Your task to perform on an android device: open a bookmark in the chrome app Image 0: 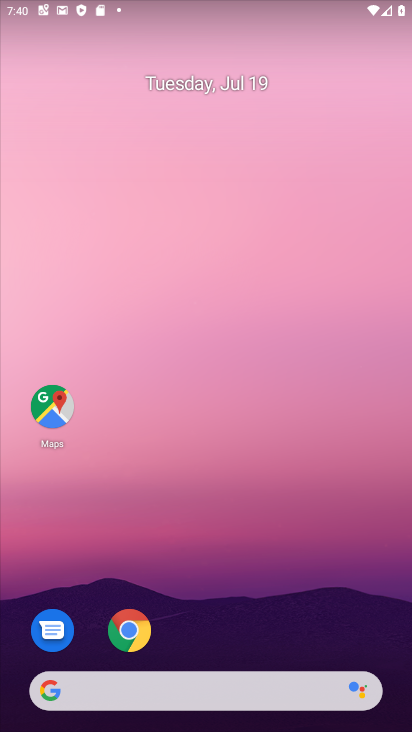
Step 0: drag from (333, 660) to (300, 120)
Your task to perform on an android device: open a bookmark in the chrome app Image 1: 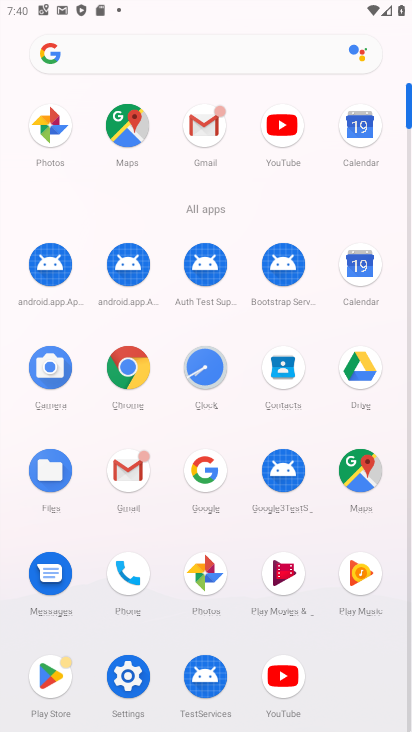
Step 1: click (123, 370)
Your task to perform on an android device: open a bookmark in the chrome app Image 2: 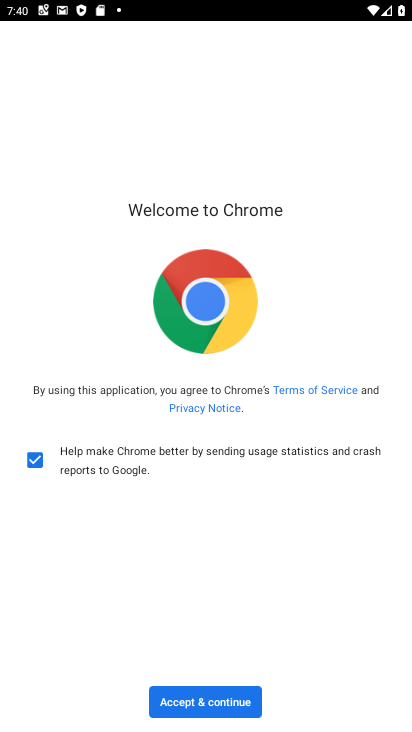
Step 2: click (250, 706)
Your task to perform on an android device: open a bookmark in the chrome app Image 3: 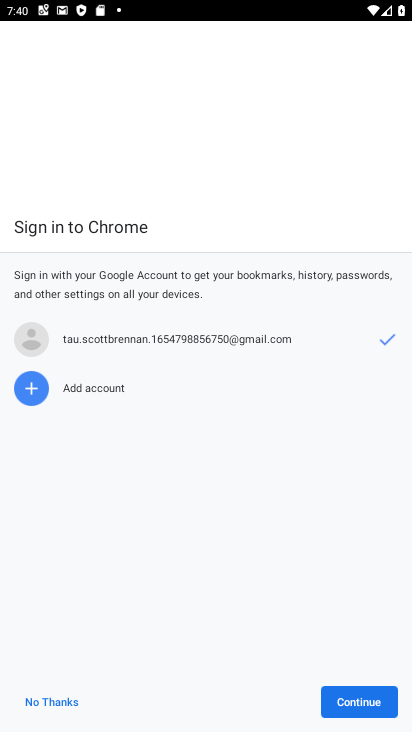
Step 3: click (344, 699)
Your task to perform on an android device: open a bookmark in the chrome app Image 4: 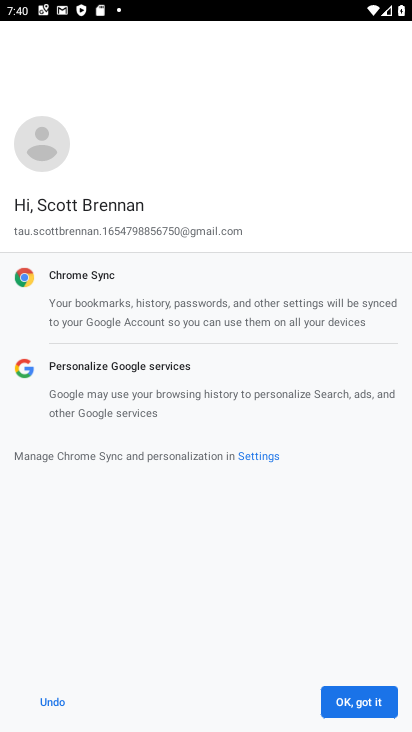
Step 4: click (344, 699)
Your task to perform on an android device: open a bookmark in the chrome app Image 5: 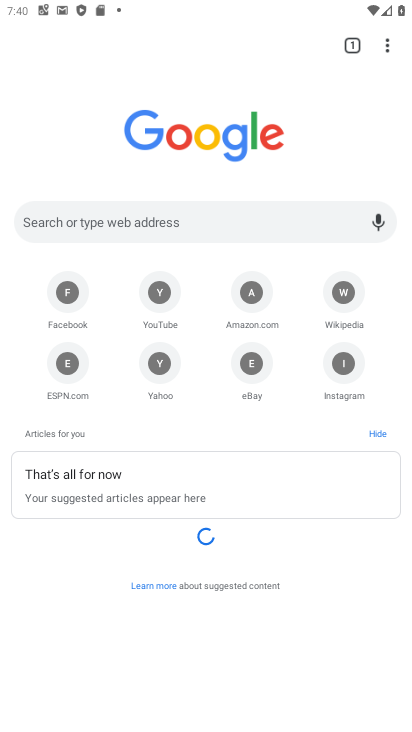
Step 5: drag from (390, 47) to (247, 159)
Your task to perform on an android device: open a bookmark in the chrome app Image 6: 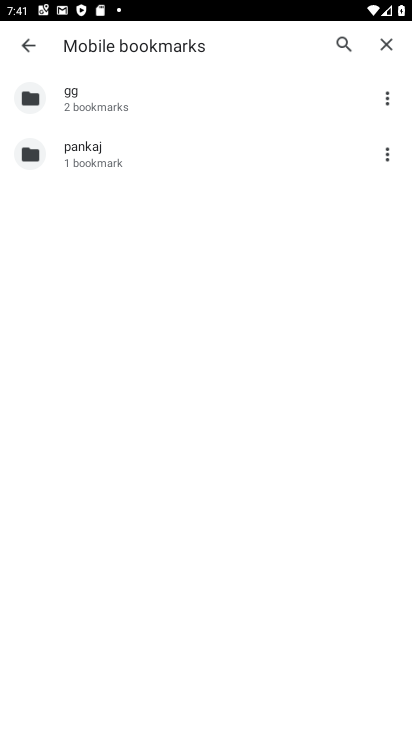
Step 6: click (245, 159)
Your task to perform on an android device: open a bookmark in the chrome app Image 7: 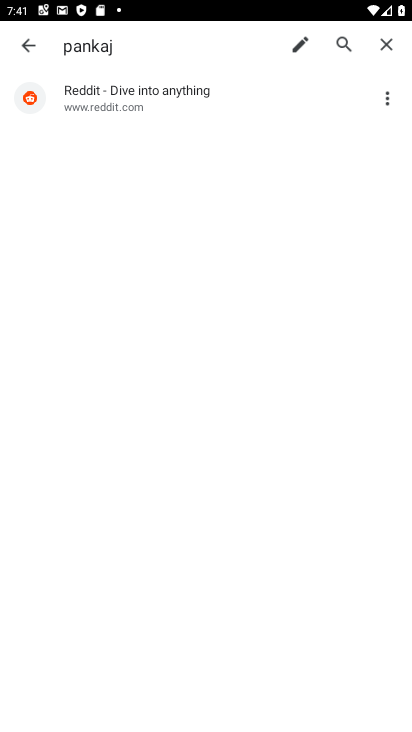
Step 7: click (157, 106)
Your task to perform on an android device: open a bookmark in the chrome app Image 8: 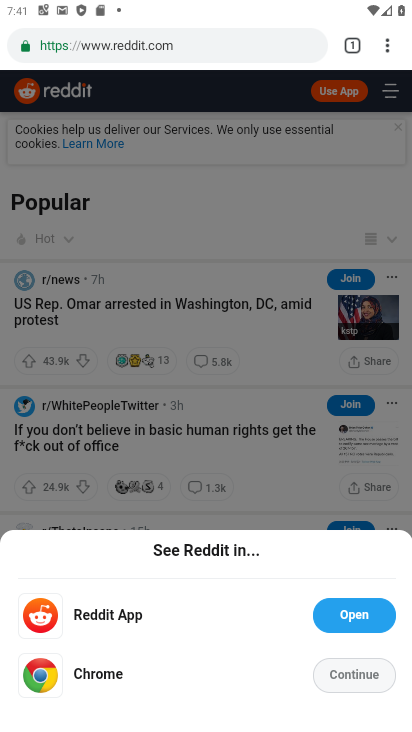
Step 8: task complete